Your task to perform on an android device: Open Android settings Image 0: 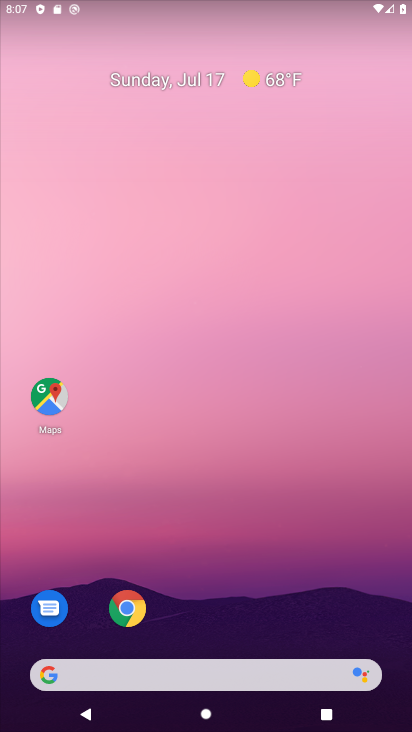
Step 0: drag from (338, 606) to (351, 7)
Your task to perform on an android device: Open Android settings Image 1: 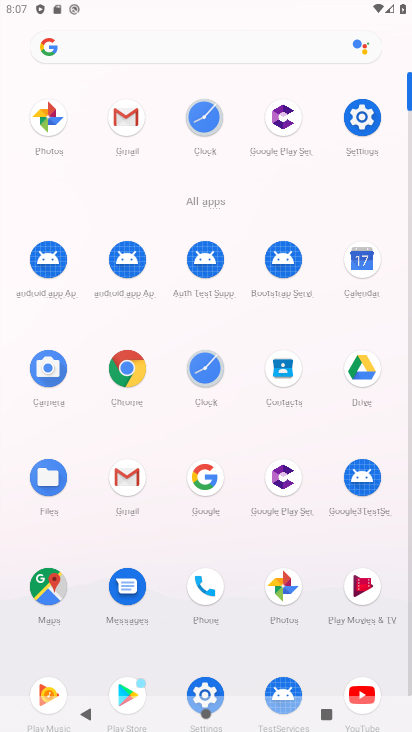
Step 1: click (356, 127)
Your task to perform on an android device: Open Android settings Image 2: 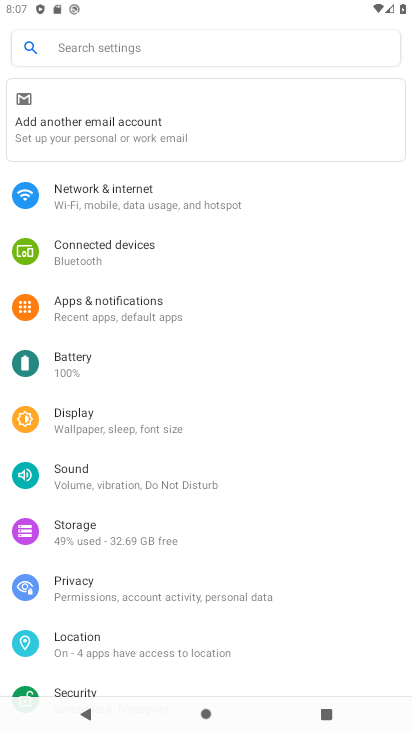
Step 2: drag from (194, 561) to (173, 110)
Your task to perform on an android device: Open Android settings Image 3: 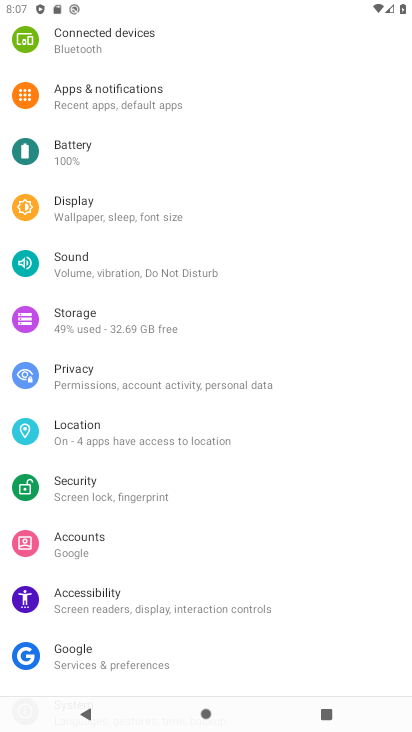
Step 3: drag from (164, 581) to (145, 127)
Your task to perform on an android device: Open Android settings Image 4: 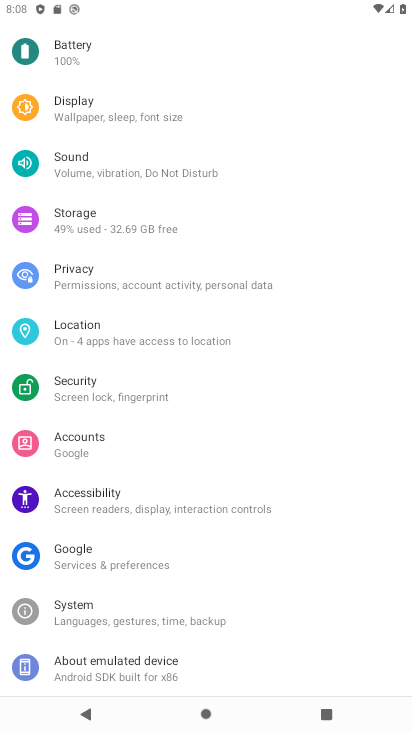
Step 4: click (130, 626)
Your task to perform on an android device: Open Android settings Image 5: 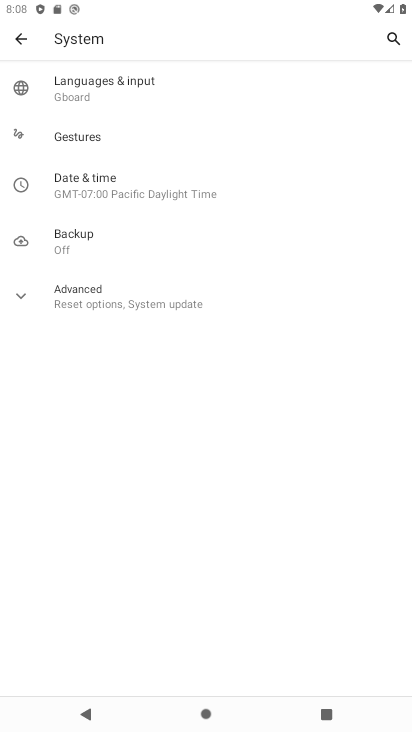
Step 5: task complete